Your task to perform on an android device: change text size in settings app Image 0: 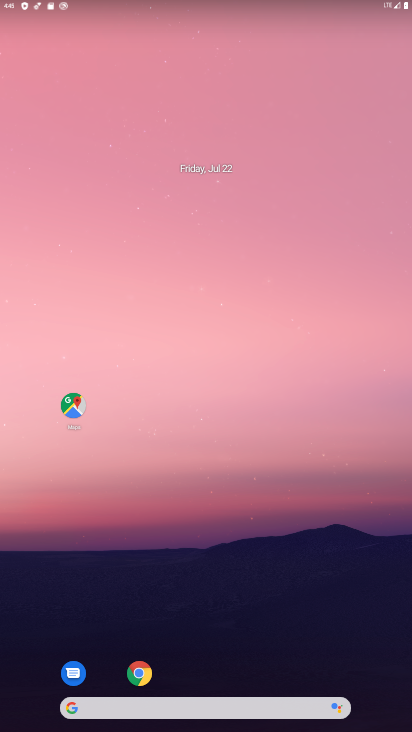
Step 0: press home button
Your task to perform on an android device: change text size in settings app Image 1: 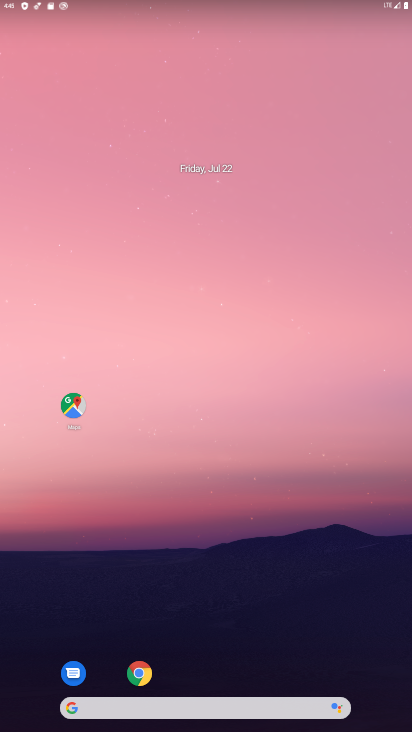
Step 1: drag from (291, 578) to (269, 130)
Your task to perform on an android device: change text size in settings app Image 2: 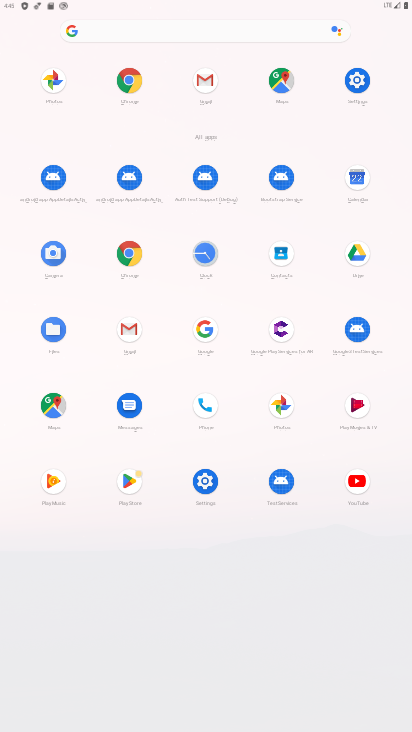
Step 2: click (352, 81)
Your task to perform on an android device: change text size in settings app Image 3: 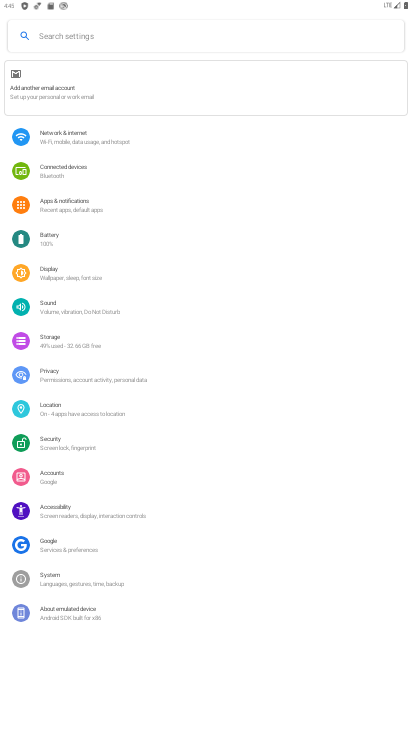
Step 3: click (52, 280)
Your task to perform on an android device: change text size in settings app Image 4: 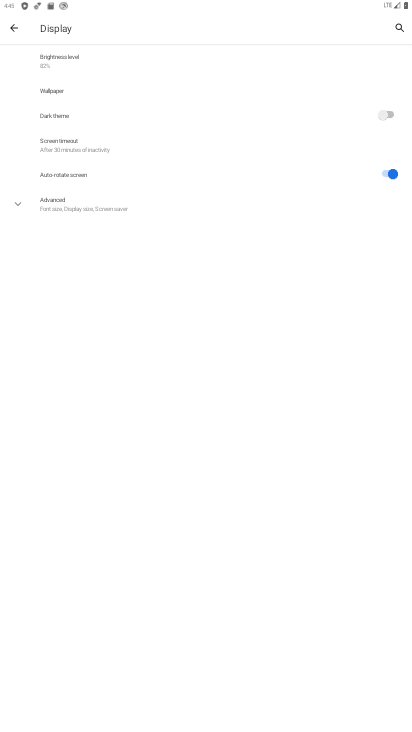
Step 4: click (60, 210)
Your task to perform on an android device: change text size in settings app Image 5: 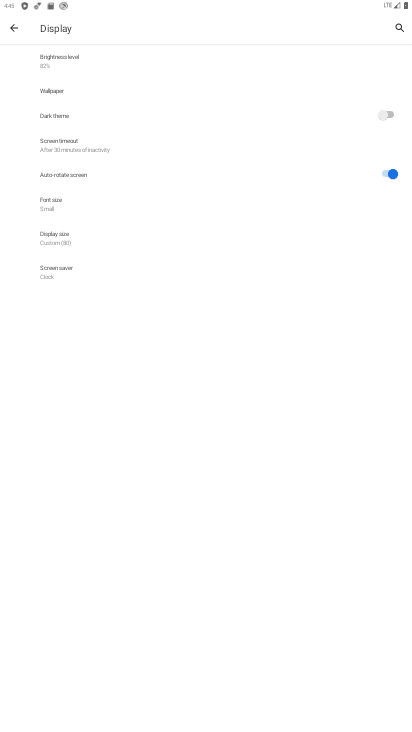
Step 5: click (48, 202)
Your task to perform on an android device: change text size in settings app Image 6: 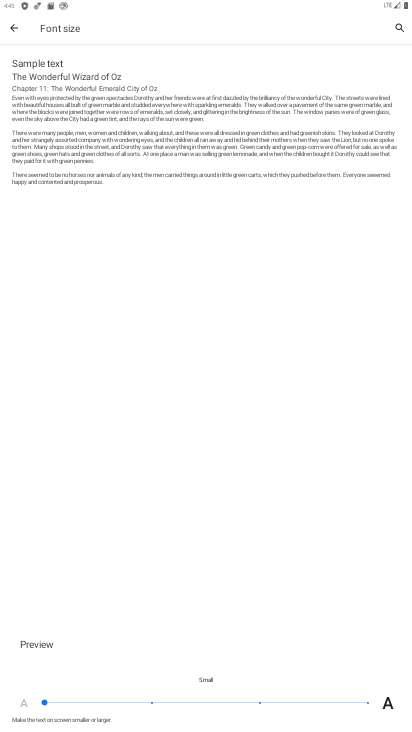
Step 6: click (369, 701)
Your task to perform on an android device: change text size in settings app Image 7: 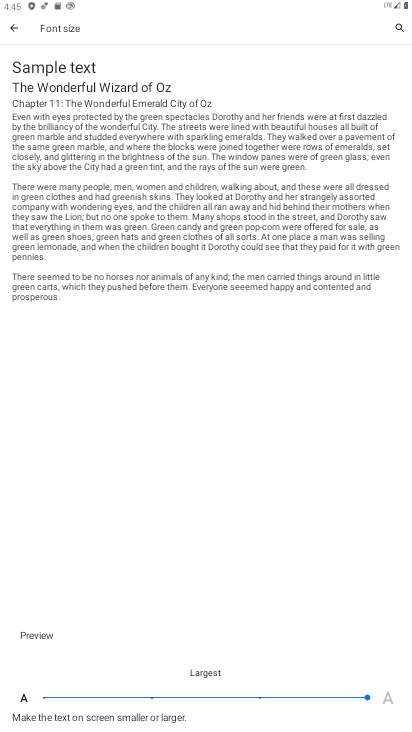
Step 7: task complete